Your task to perform on an android device: Go to Yahoo.com Image 0: 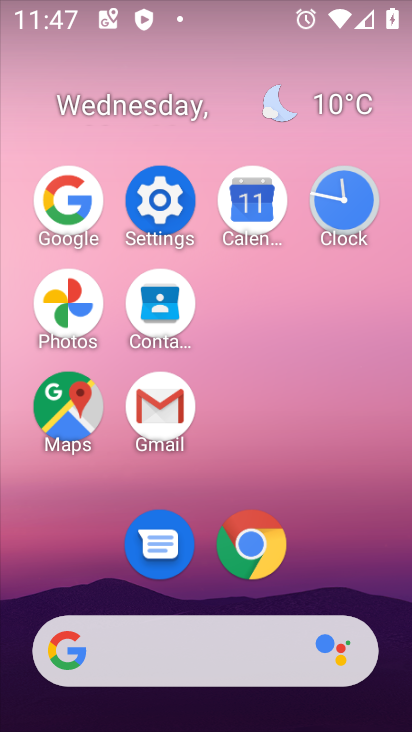
Step 0: click (265, 540)
Your task to perform on an android device: Go to Yahoo.com Image 1: 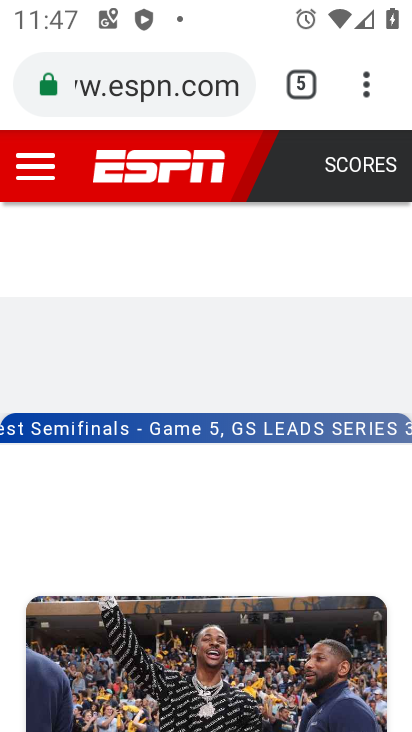
Step 1: click (309, 91)
Your task to perform on an android device: Go to Yahoo.com Image 2: 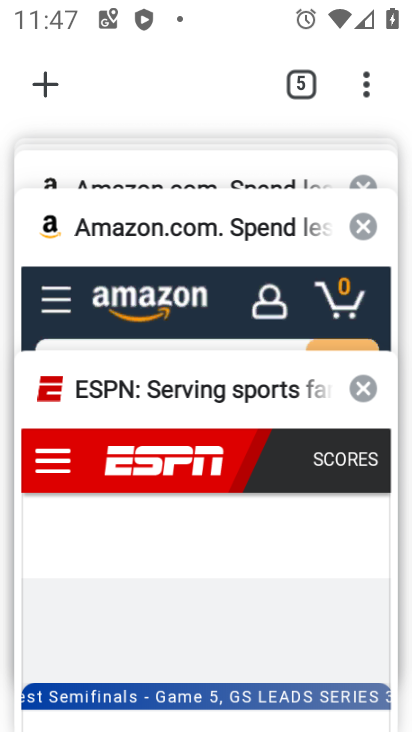
Step 2: click (50, 88)
Your task to perform on an android device: Go to Yahoo.com Image 3: 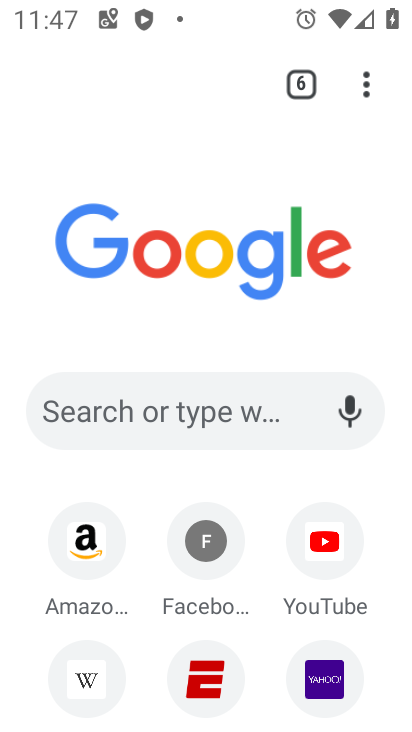
Step 3: click (317, 669)
Your task to perform on an android device: Go to Yahoo.com Image 4: 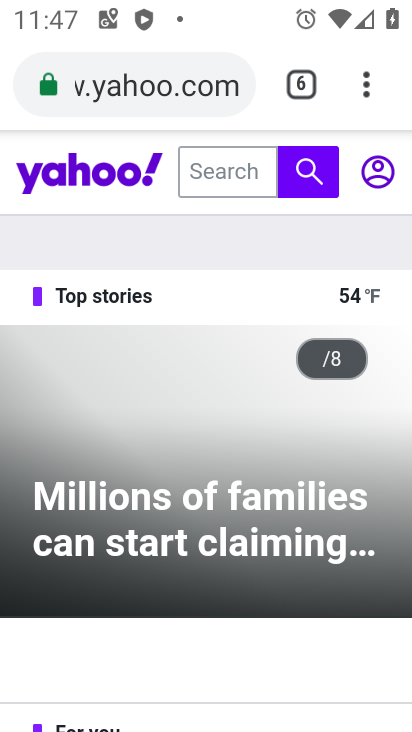
Step 4: task complete